Your task to perform on an android device: Check the weather Image 0: 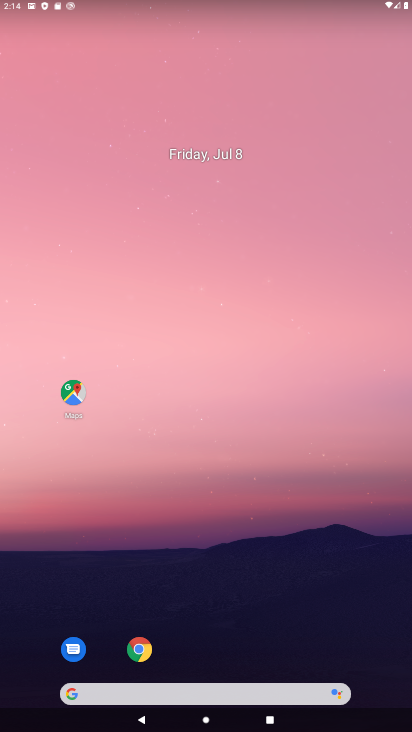
Step 0: drag from (239, 617) to (226, 156)
Your task to perform on an android device: Check the weather Image 1: 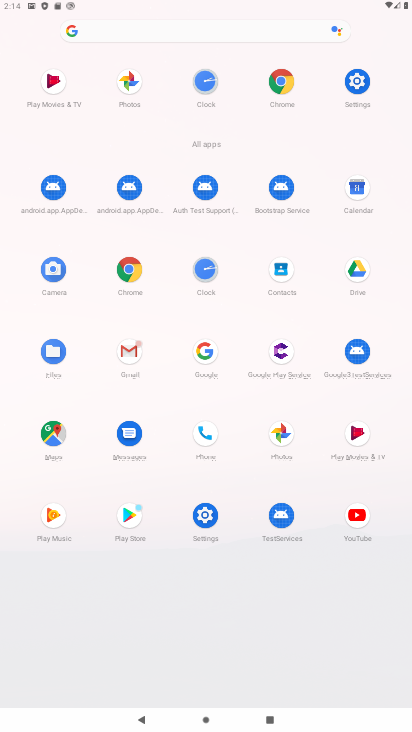
Step 1: click (291, 78)
Your task to perform on an android device: Check the weather Image 2: 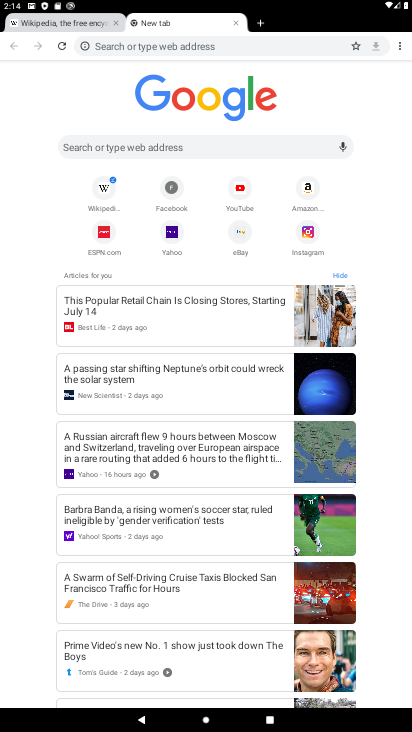
Step 2: click (137, 49)
Your task to perform on an android device: Check the weather Image 3: 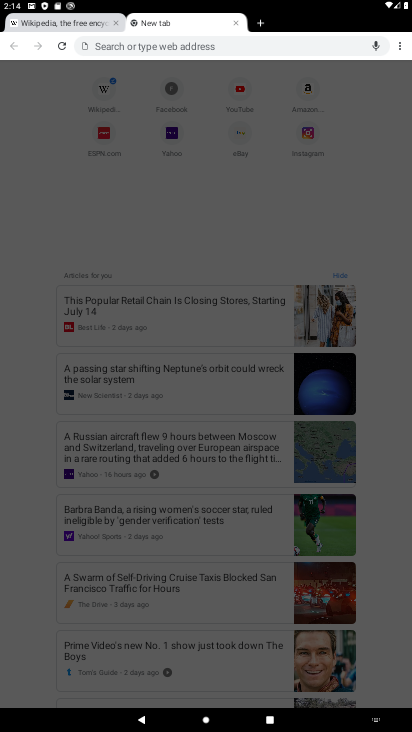
Step 3: type "weather"
Your task to perform on an android device: Check the weather Image 4: 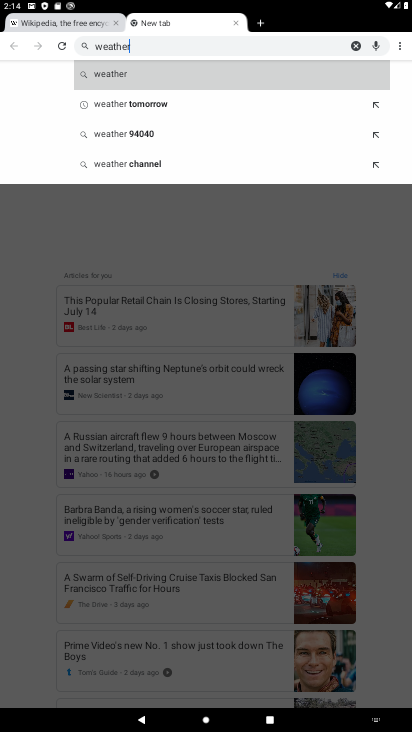
Step 4: press enter
Your task to perform on an android device: Check the weather Image 5: 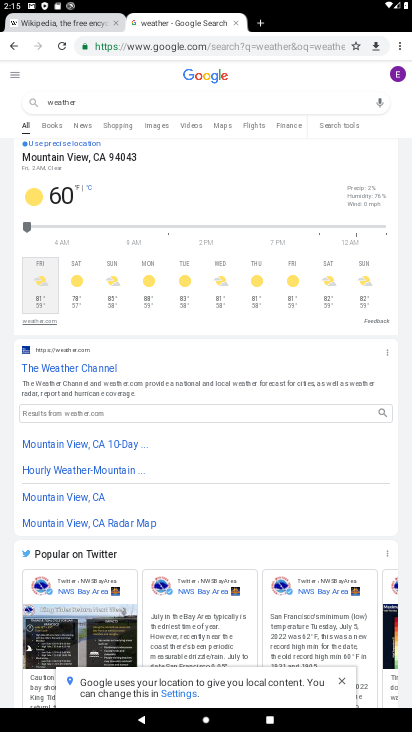
Step 5: task complete